Your task to perform on an android device: check out phone information Image 0: 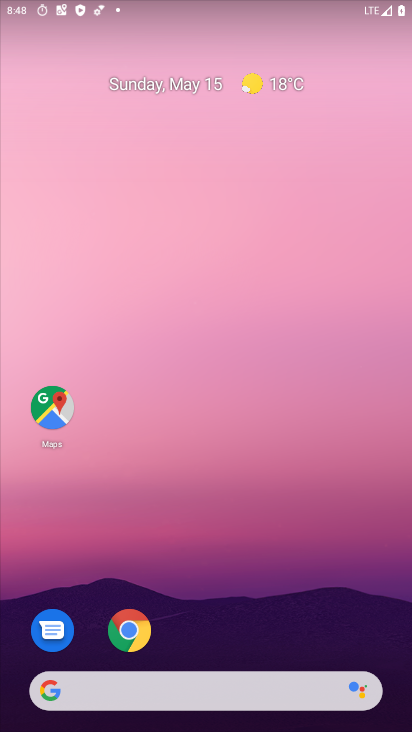
Step 0: drag from (240, 588) to (273, 446)
Your task to perform on an android device: check out phone information Image 1: 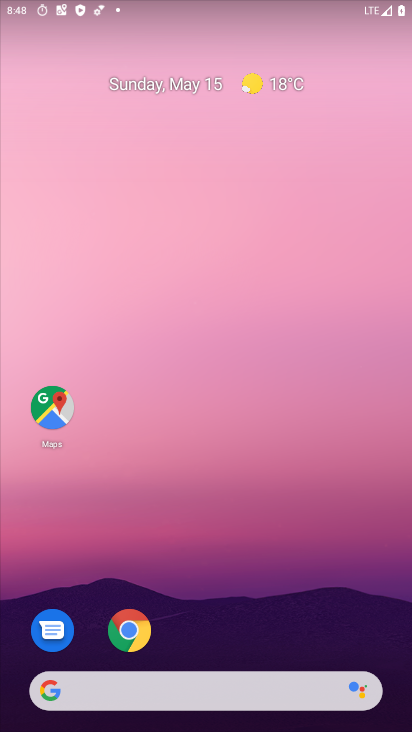
Step 1: drag from (206, 617) to (287, 369)
Your task to perform on an android device: check out phone information Image 2: 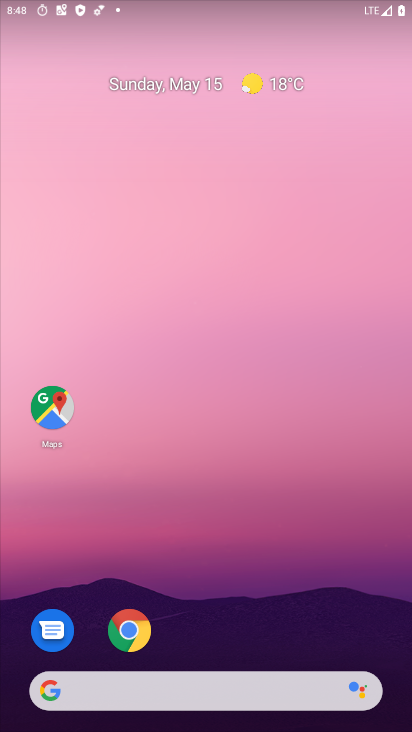
Step 2: drag from (160, 664) to (224, 306)
Your task to perform on an android device: check out phone information Image 3: 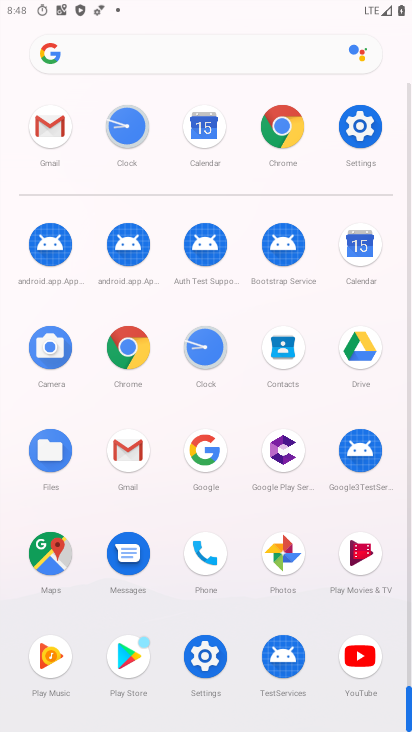
Step 3: click (354, 113)
Your task to perform on an android device: check out phone information Image 4: 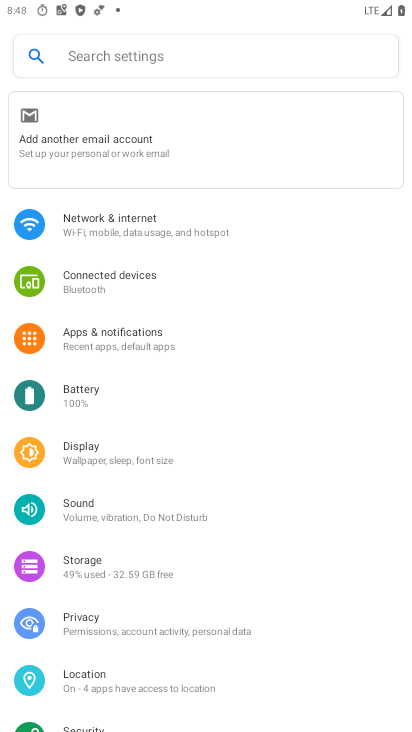
Step 4: drag from (124, 646) to (379, 47)
Your task to perform on an android device: check out phone information Image 5: 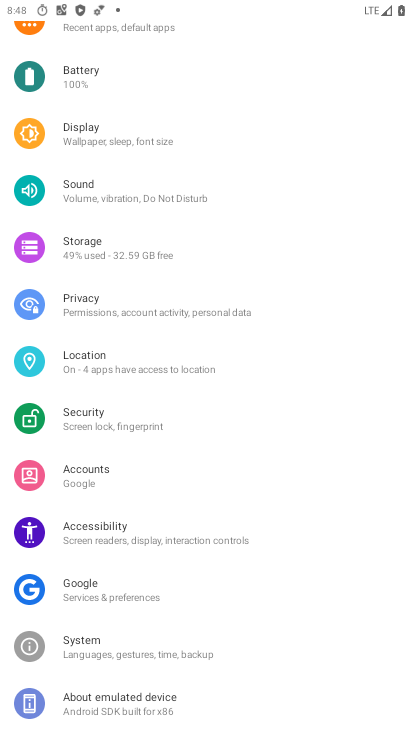
Step 5: click (147, 696)
Your task to perform on an android device: check out phone information Image 6: 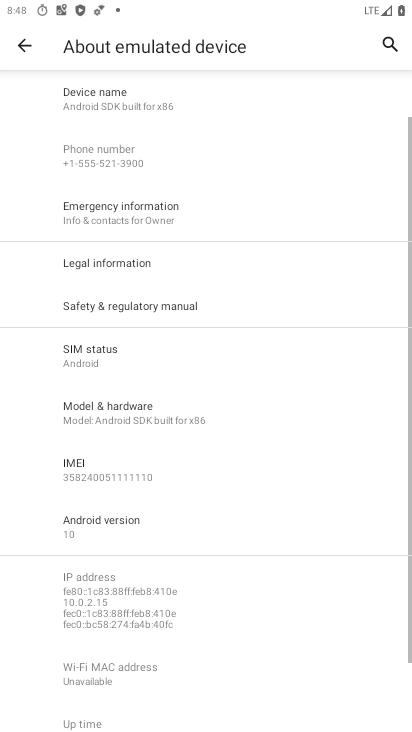
Step 6: task complete